Your task to perform on an android device: open a bookmark in the chrome app Image 0: 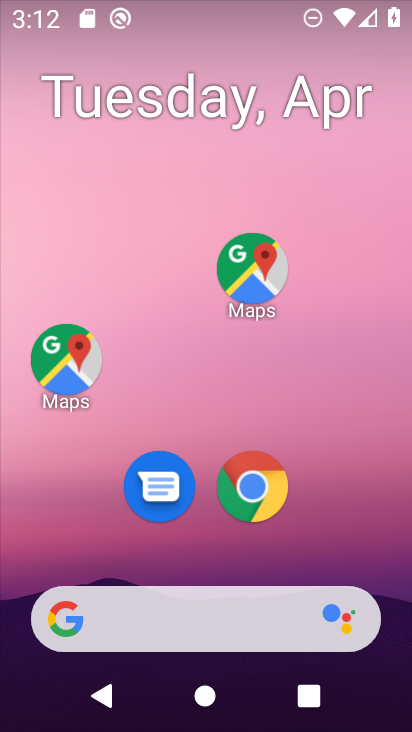
Step 0: click (262, 502)
Your task to perform on an android device: open a bookmark in the chrome app Image 1: 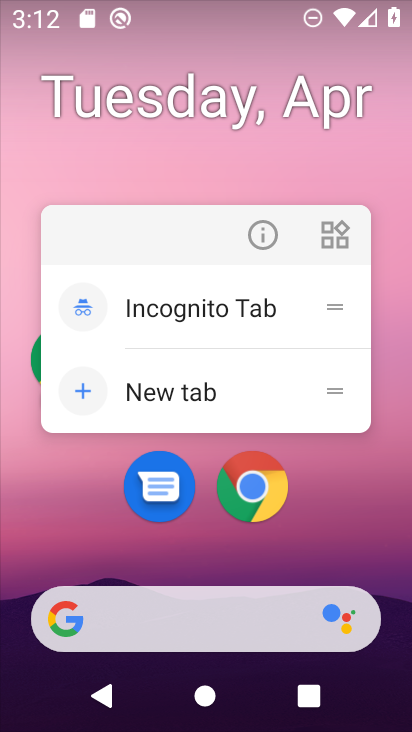
Step 1: click (264, 243)
Your task to perform on an android device: open a bookmark in the chrome app Image 2: 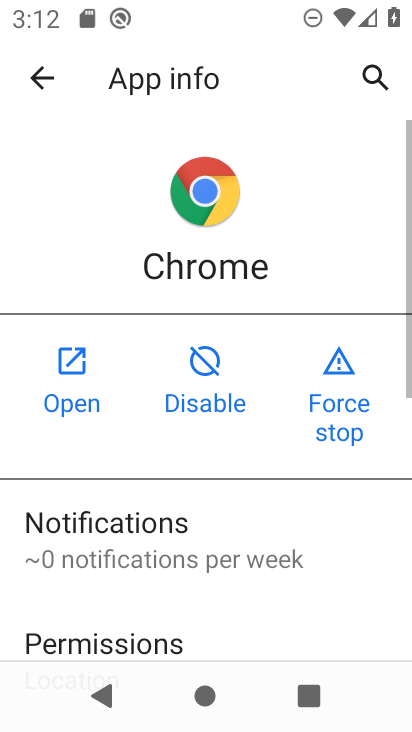
Step 2: click (91, 367)
Your task to perform on an android device: open a bookmark in the chrome app Image 3: 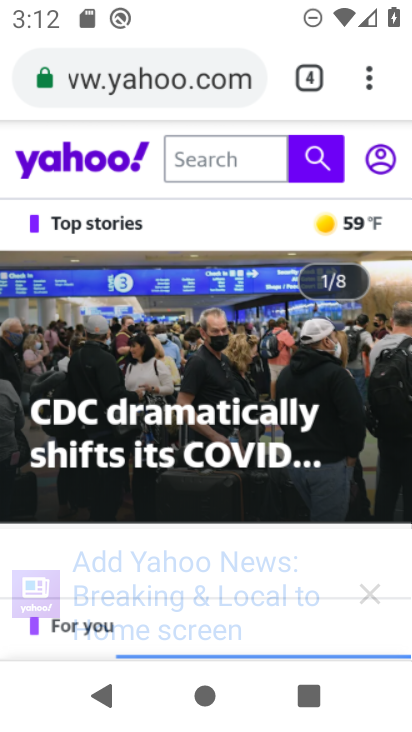
Step 3: click (375, 71)
Your task to perform on an android device: open a bookmark in the chrome app Image 4: 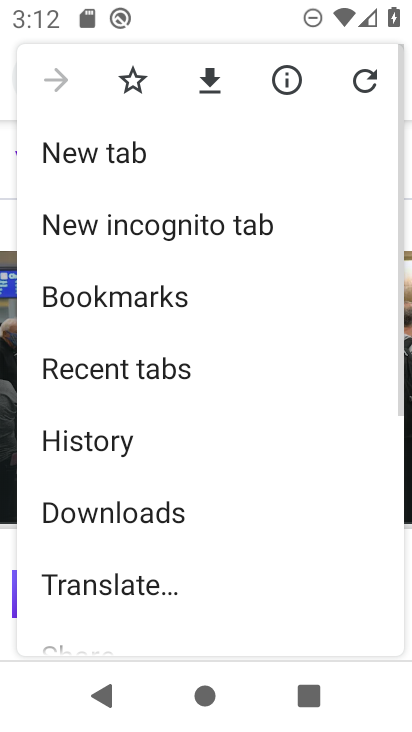
Step 4: click (219, 304)
Your task to perform on an android device: open a bookmark in the chrome app Image 5: 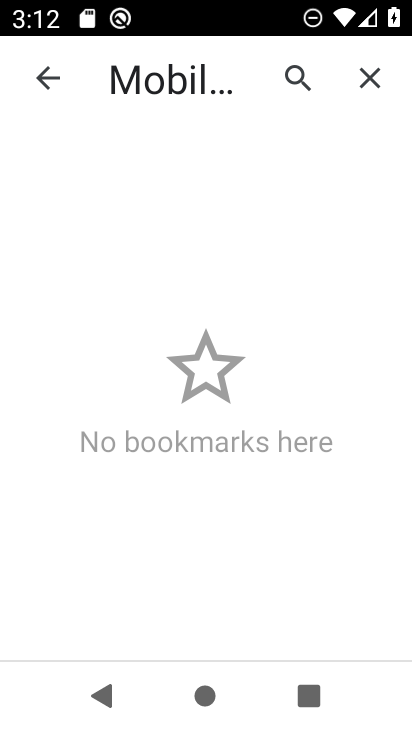
Step 5: task complete